Your task to perform on an android device: Is it going to rain tomorrow? Image 0: 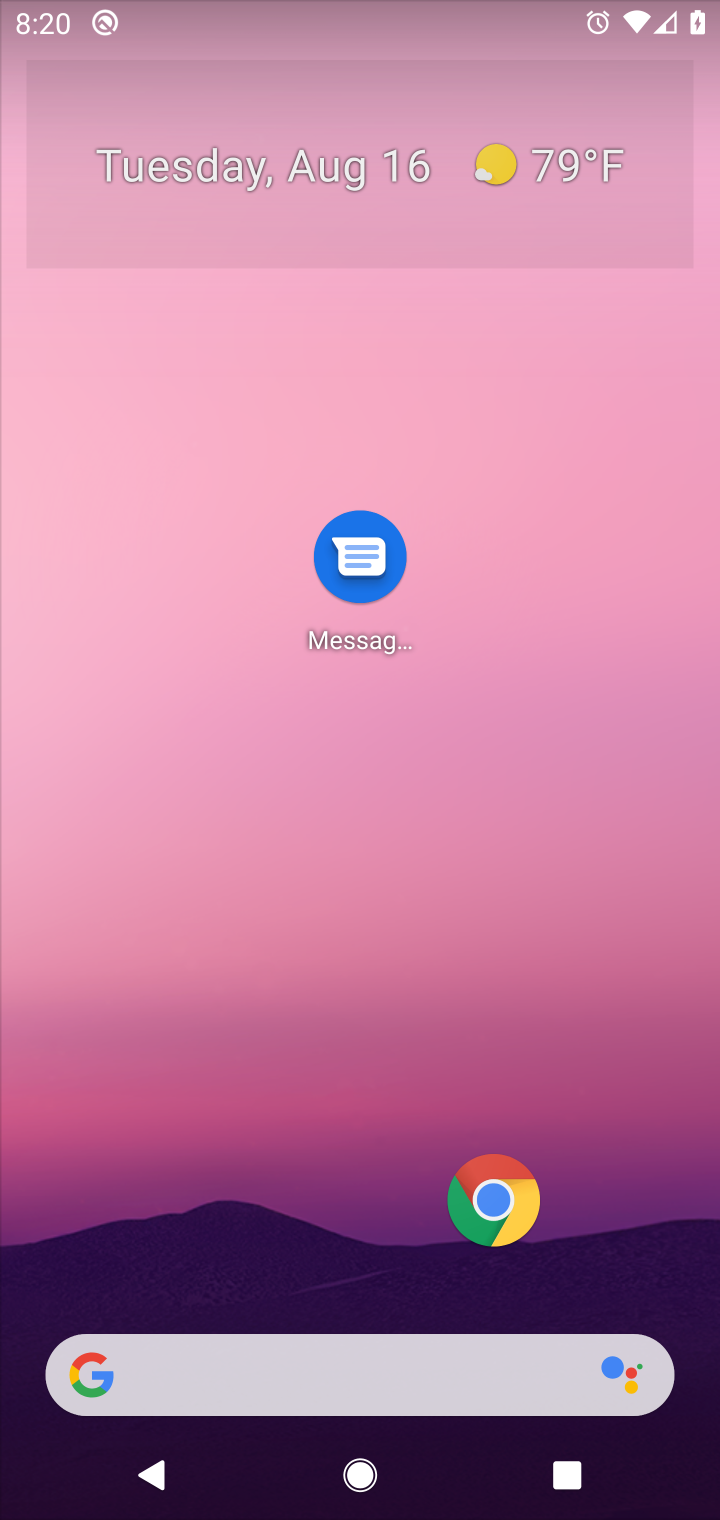
Step 0: click (252, 1378)
Your task to perform on an android device: Is it going to rain tomorrow? Image 1: 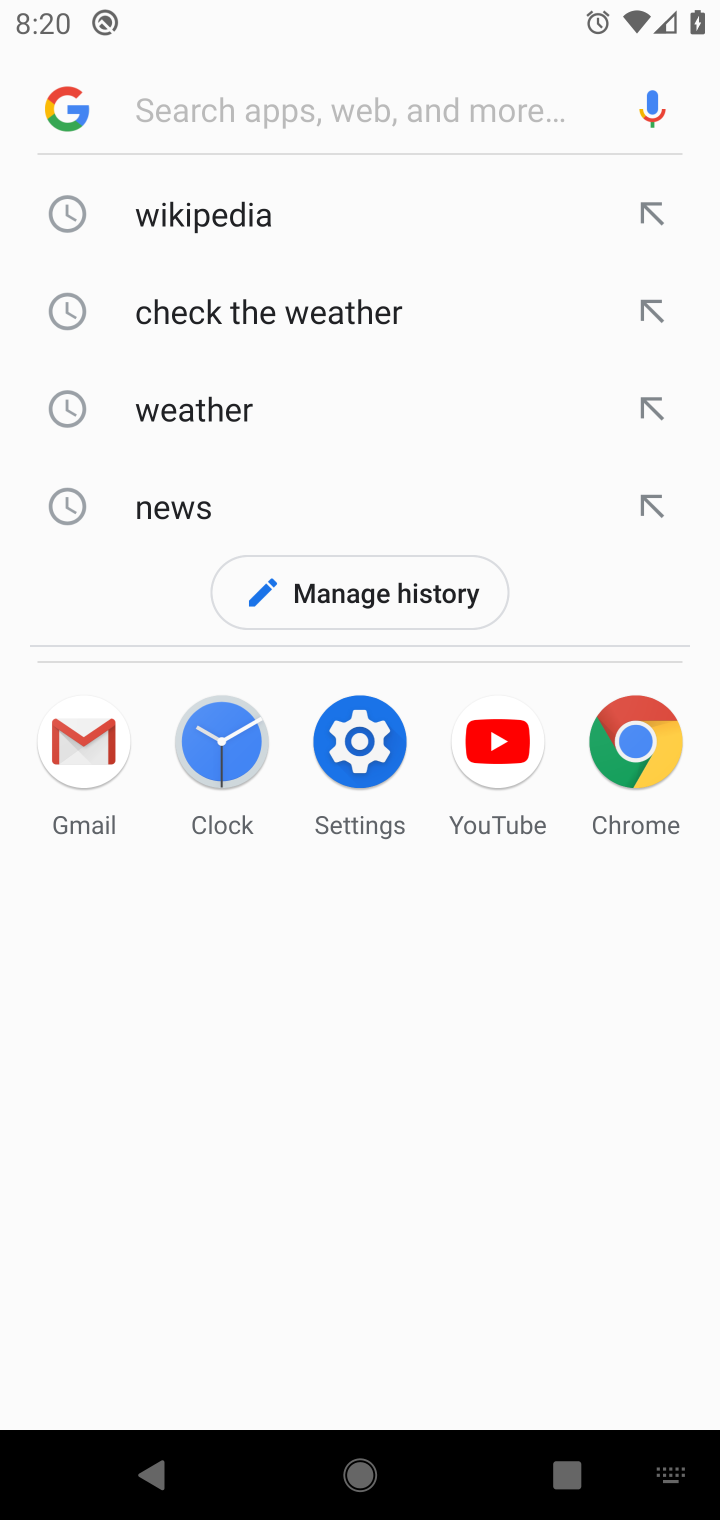
Step 1: type "Is it going to rain tomorrow?"
Your task to perform on an android device: Is it going to rain tomorrow? Image 2: 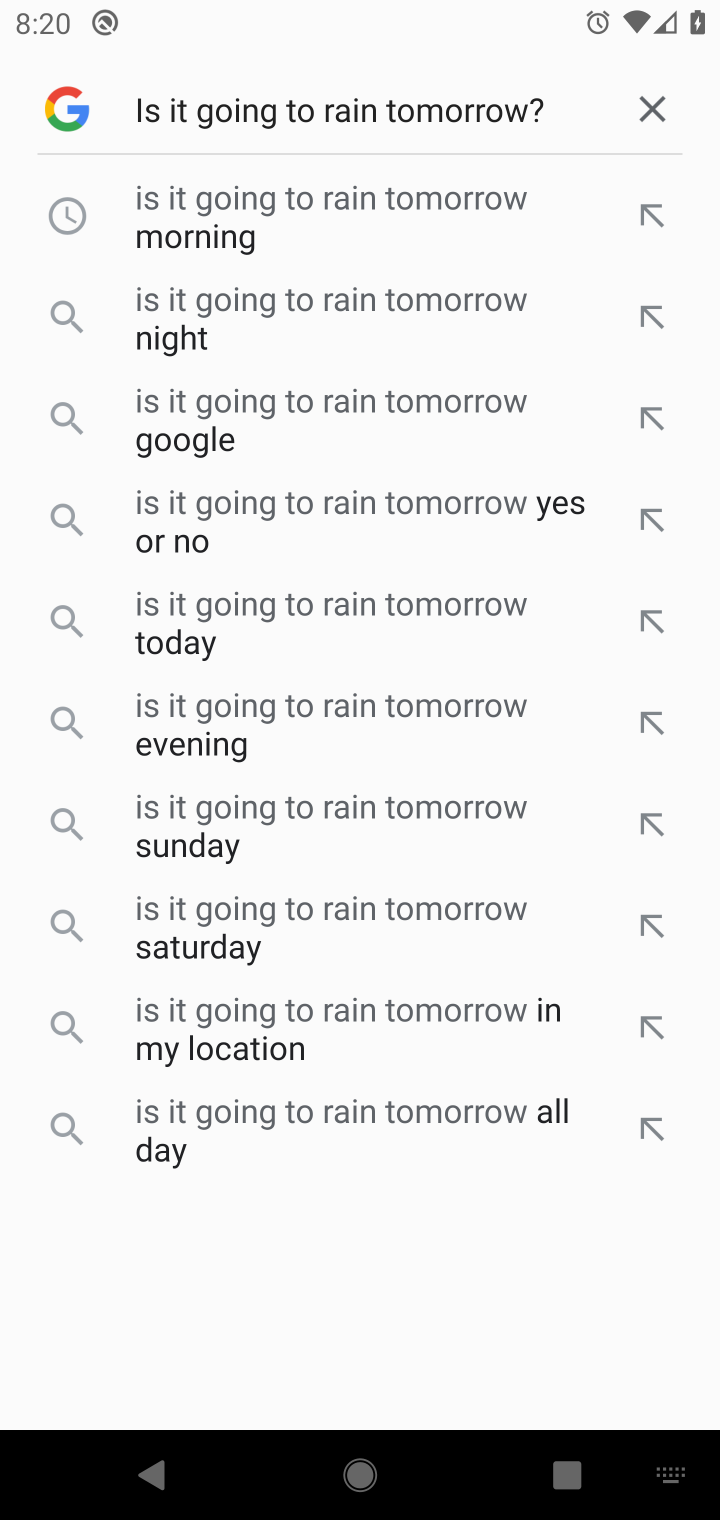
Step 2: type ""
Your task to perform on an android device: Is it going to rain tomorrow? Image 3: 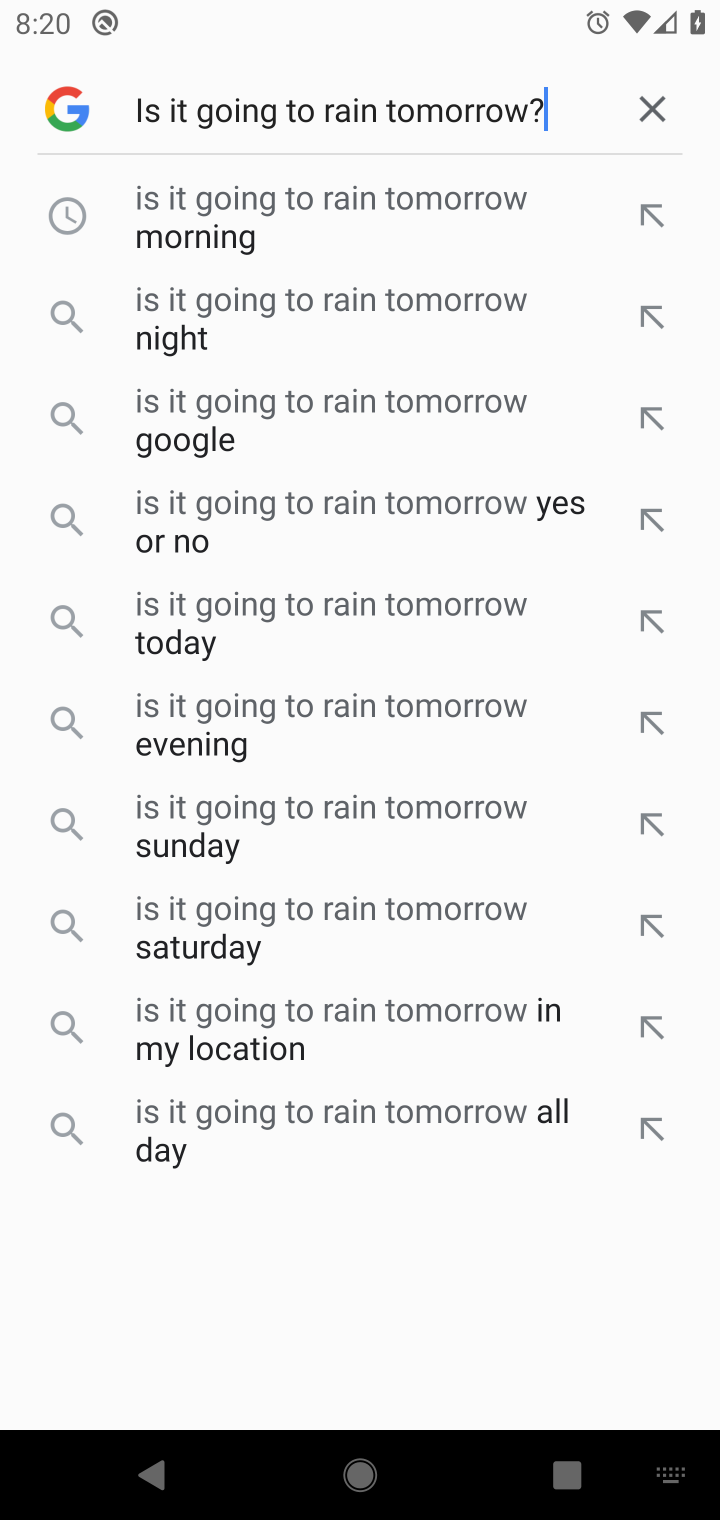
Step 3: type ""
Your task to perform on an android device: Is it going to rain tomorrow? Image 4: 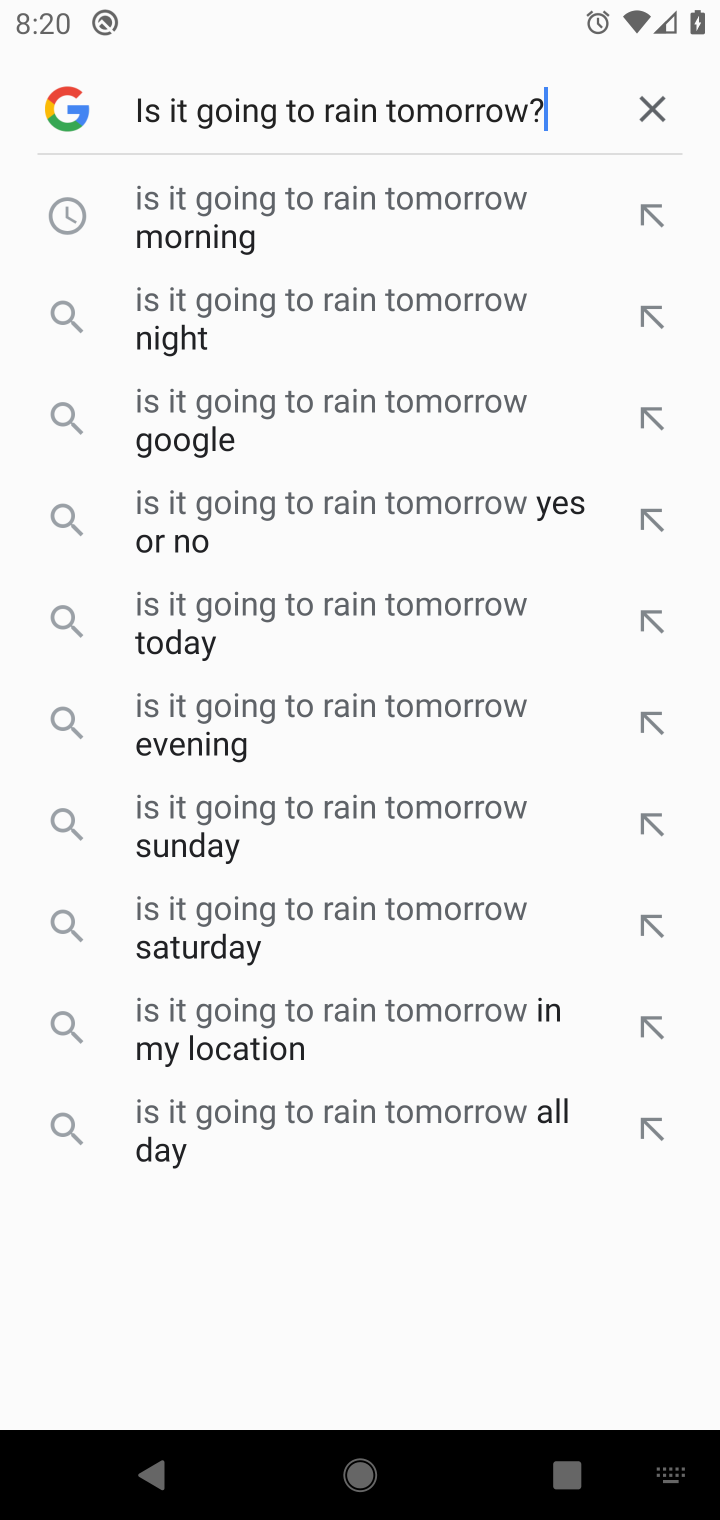
Step 4: task complete